Your task to perform on an android device: Open internet settings Image 0: 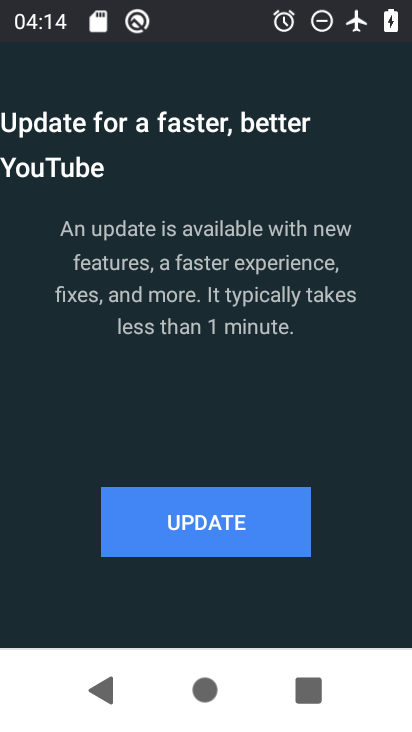
Step 0: press home button
Your task to perform on an android device: Open internet settings Image 1: 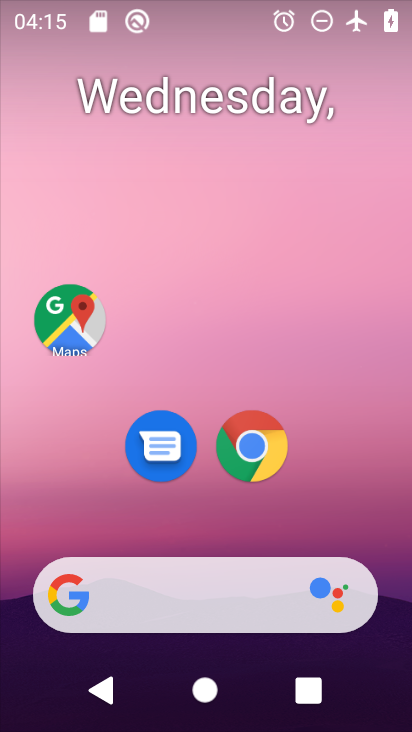
Step 1: drag from (189, 538) to (225, 101)
Your task to perform on an android device: Open internet settings Image 2: 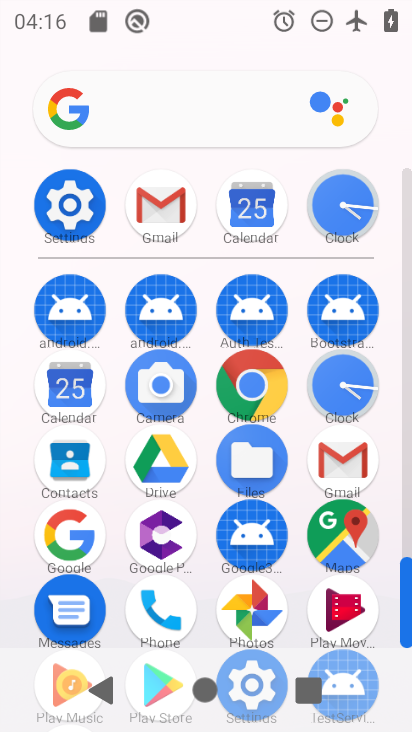
Step 2: click (89, 204)
Your task to perform on an android device: Open internet settings Image 3: 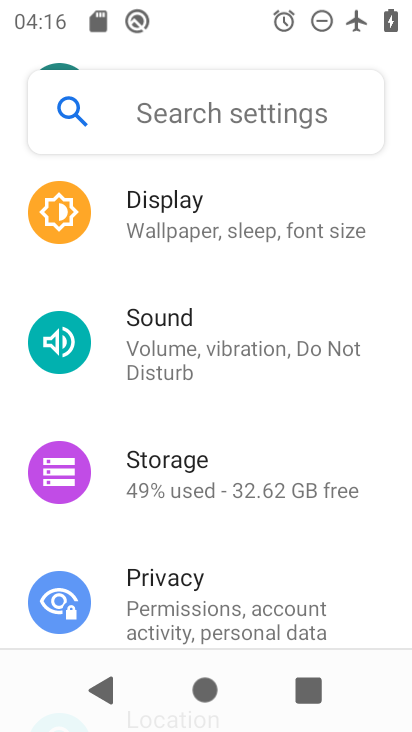
Step 3: drag from (203, 225) to (214, 516)
Your task to perform on an android device: Open internet settings Image 4: 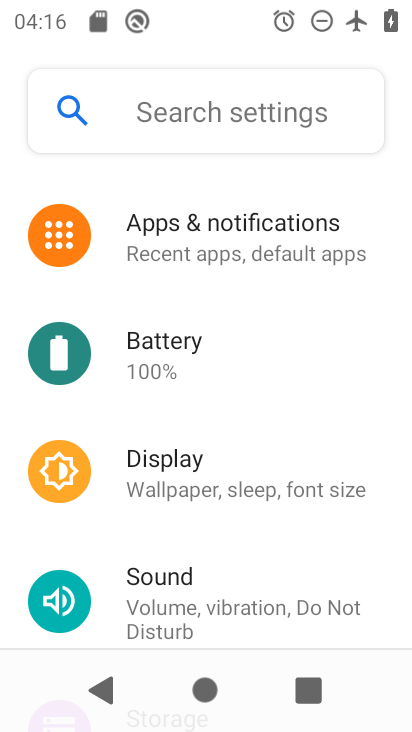
Step 4: drag from (216, 230) to (231, 586)
Your task to perform on an android device: Open internet settings Image 5: 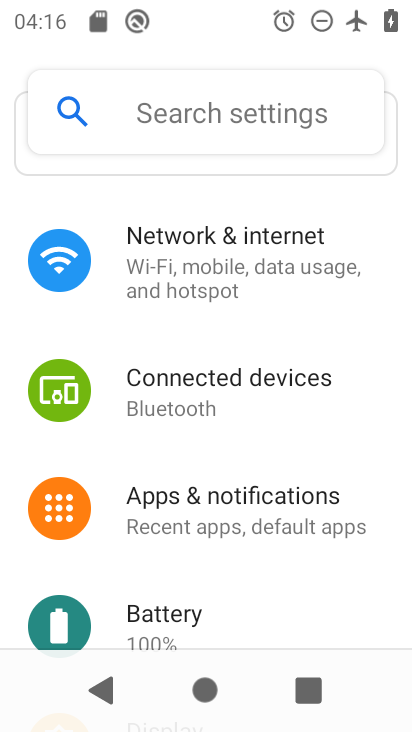
Step 5: click (222, 251)
Your task to perform on an android device: Open internet settings Image 6: 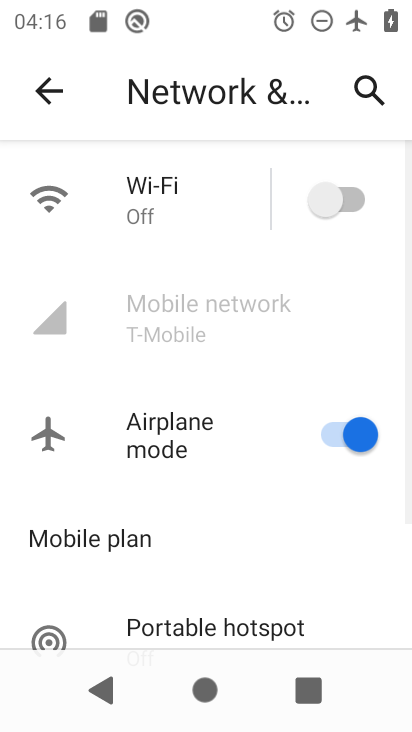
Step 6: click (212, 327)
Your task to perform on an android device: Open internet settings Image 7: 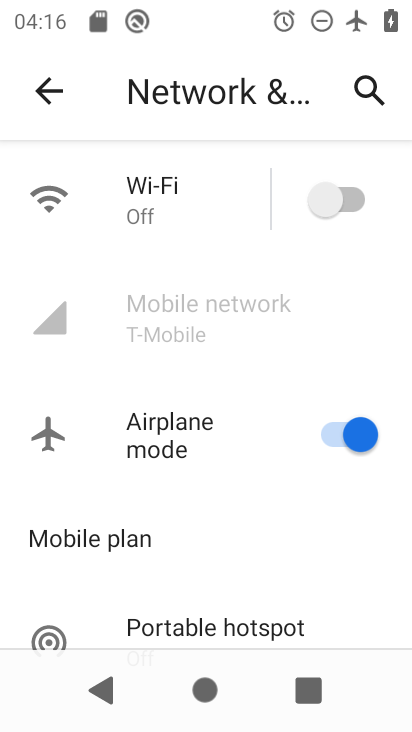
Step 7: task complete